Your task to perform on an android device: change keyboard looks Image 0: 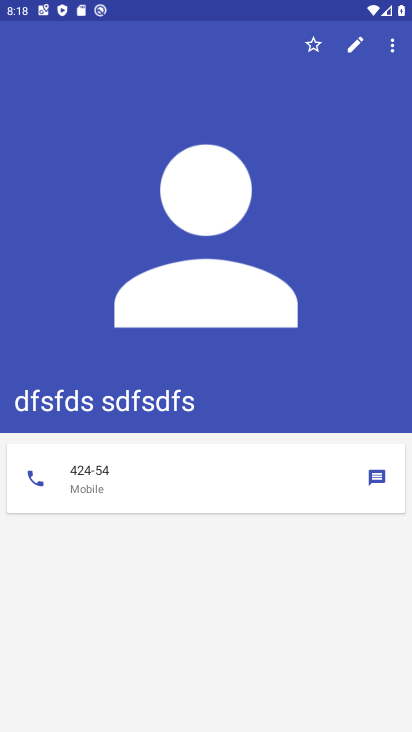
Step 0: task complete